Your task to perform on an android device: find photos in the google photos app Image 0: 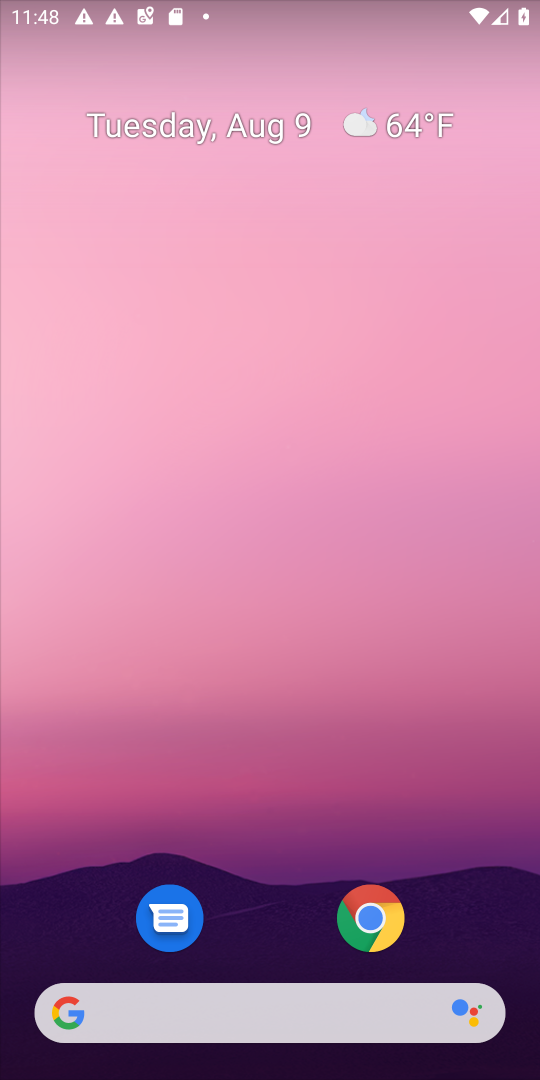
Step 0: drag from (272, 558) to (305, 166)
Your task to perform on an android device: find photos in the google photos app Image 1: 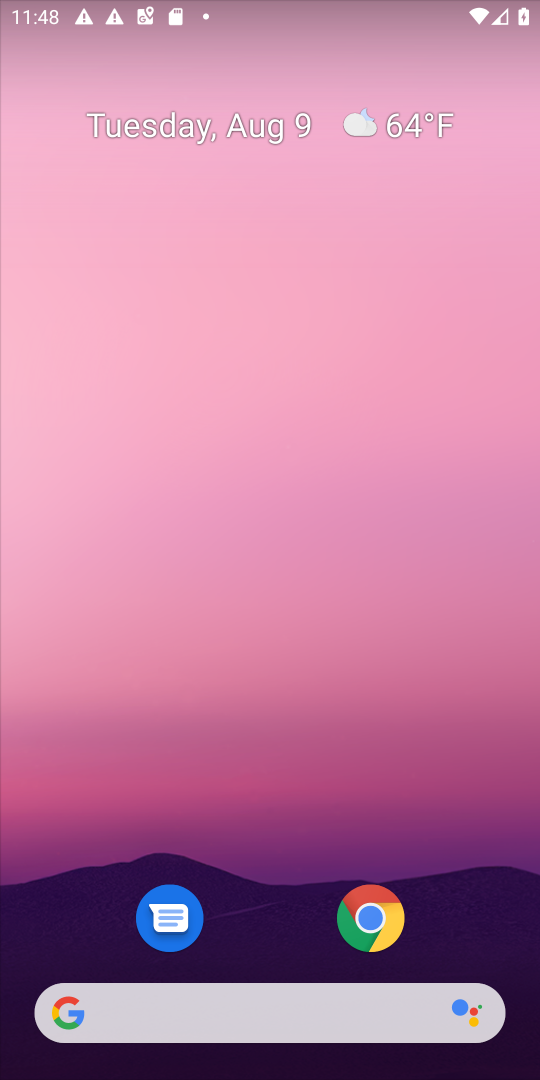
Step 1: drag from (276, 904) to (237, 66)
Your task to perform on an android device: find photos in the google photos app Image 2: 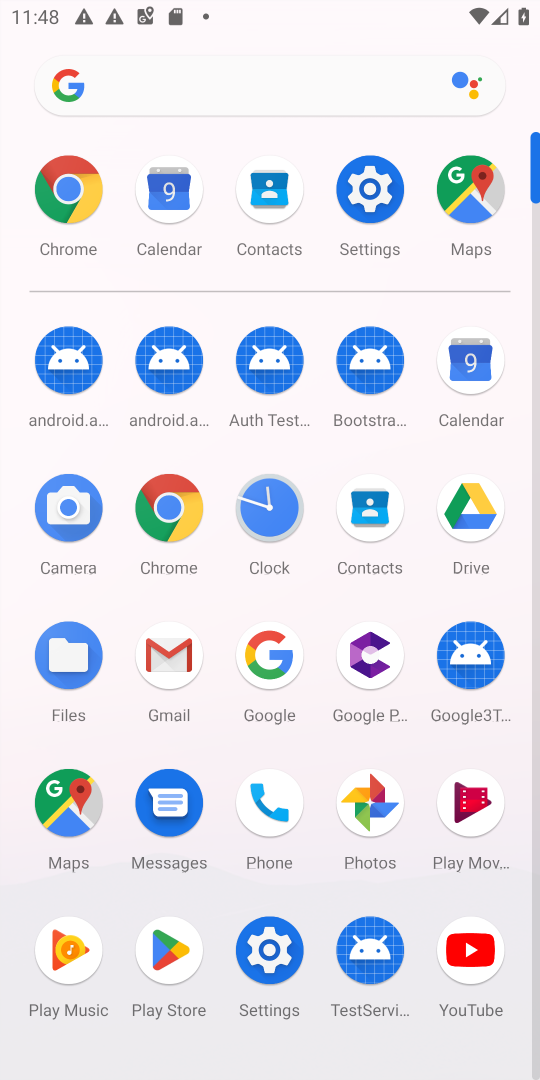
Step 2: click (372, 789)
Your task to perform on an android device: find photos in the google photos app Image 3: 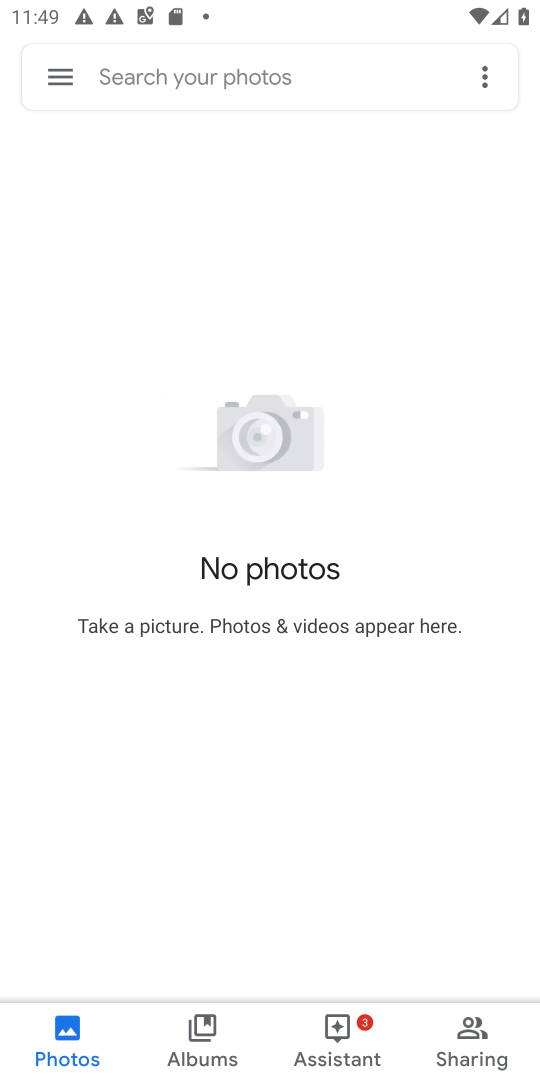
Step 3: task complete